Your task to perform on an android device: turn pop-ups off in chrome Image 0: 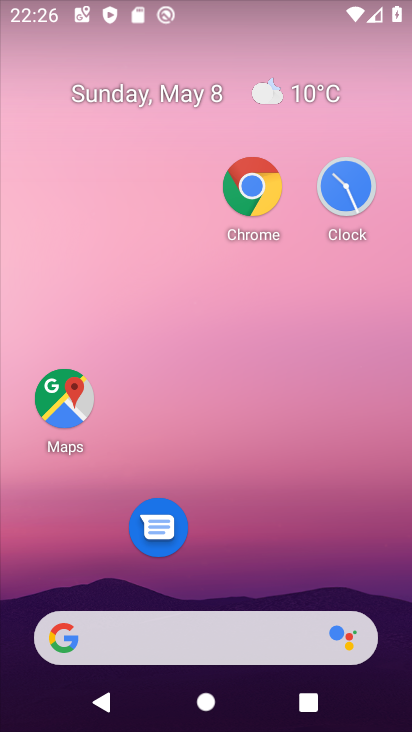
Step 0: click (239, 174)
Your task to perform on an android device: turn pop-ups off in chrome Image 1: 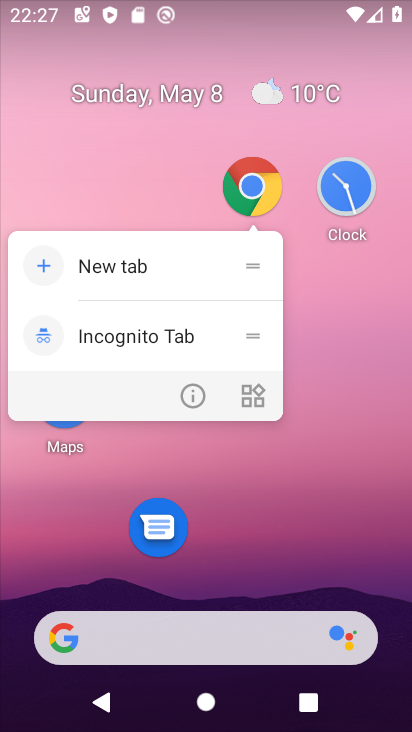
Step 1: click (239, 174)
Your task to perform on an android device: turn pop-ups off in chrome Image 2: 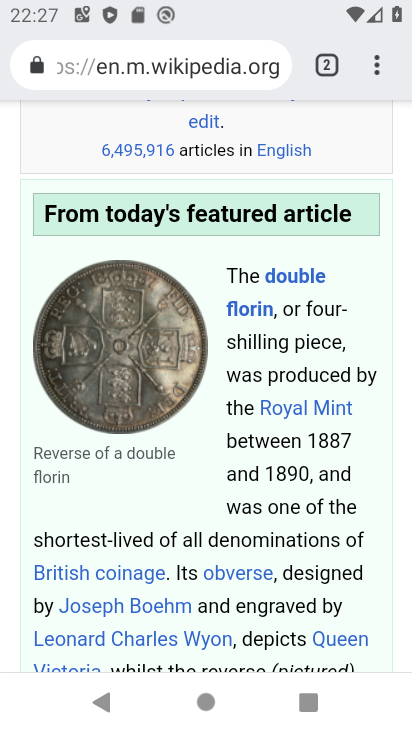
Step 2: click (381, 69)
Your task to perform on an android device: turn pop-ups off in chrome Image 3: 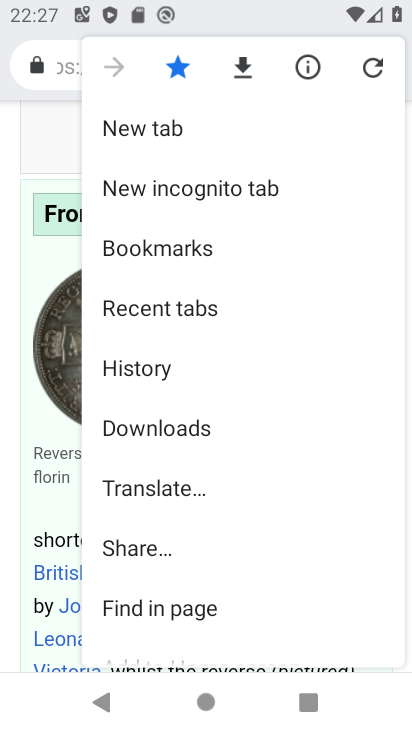
Step 3: drag from (267, 495) to (269, 136)
Your task to perform on an android device: turn pop-ups off in chrome Image 4: 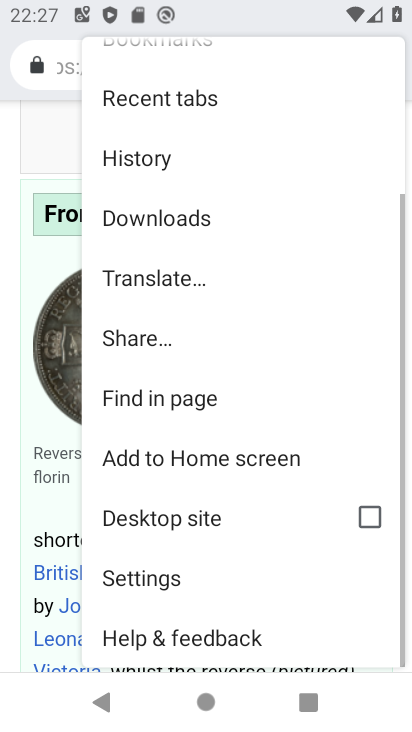
Step 4: drag from (221, 590) to (246, 247)
Your task to perform on an android device: turn pop-ups off in chrome Image 5: 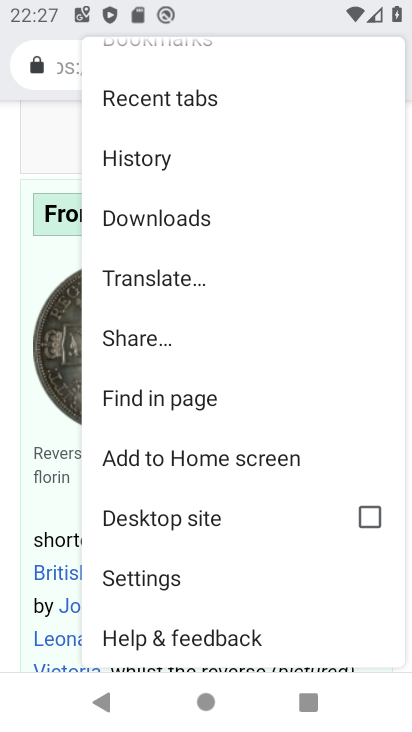
Step 5: click (240, 578)
Your task to perform on an android device: turn pop-ups off in chrome Image 6: 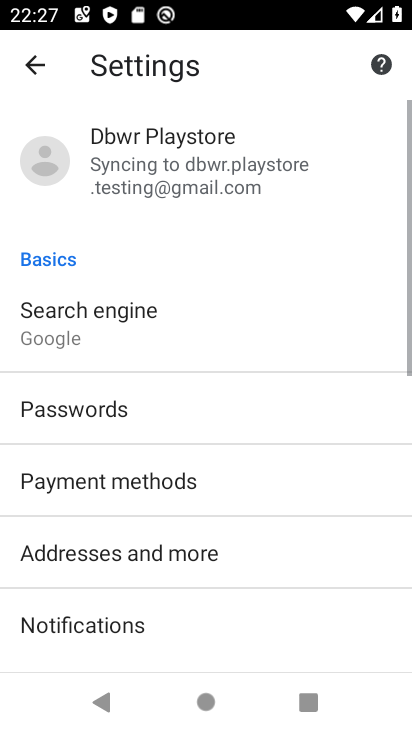
Step 6: drag from (236, 579) to (256, 298)
Your task to perform on an android device: turn pop-ups off in chrome Image 7: 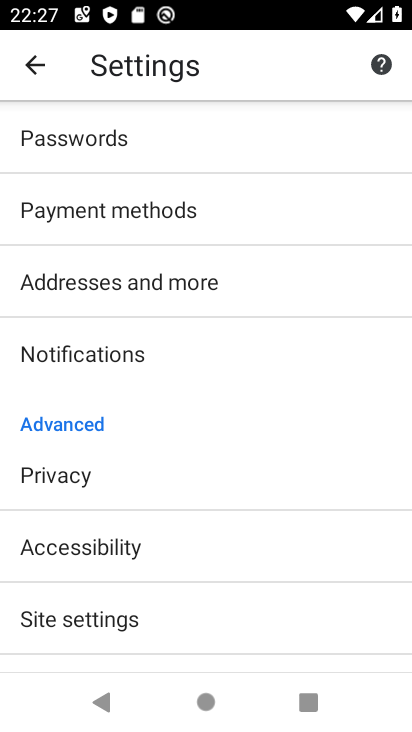
Step 7: drag from (231, 547) to (263, 225)
Your task to perform on an android device: turn pop-ups off in chrome Image 8: 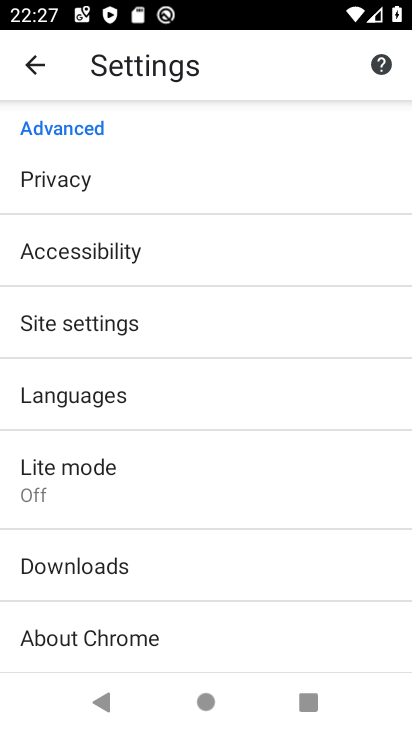
Step 8: drag from (260, 548) to (293, 129)
Your task to perform on an android device: turn pop-ups off in chrome Image 9: 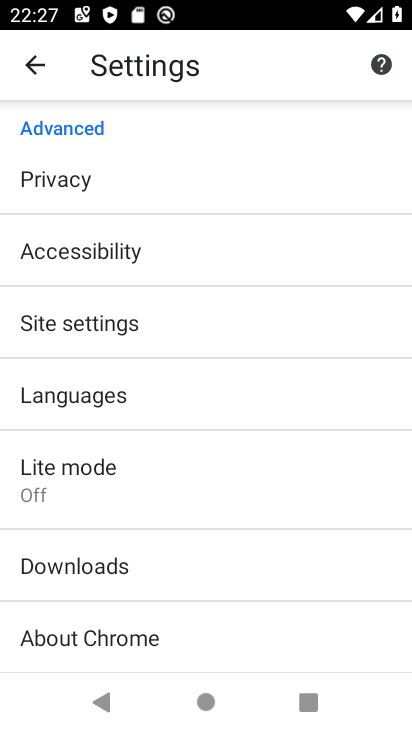
Step 9: click (99, 325)
Your task to perform on an android device: turn pop-ups off in chrome Image 10: 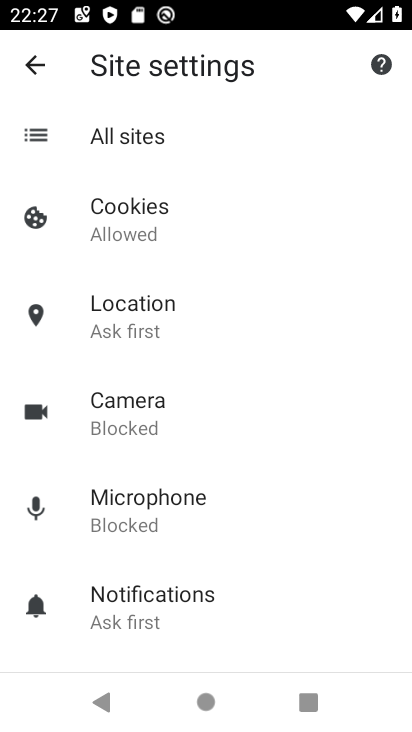
Step 10: drag from (233, 427) to (238, 64)
Your task to perform on an android device: turn pop-ups off in chrome Image 11: 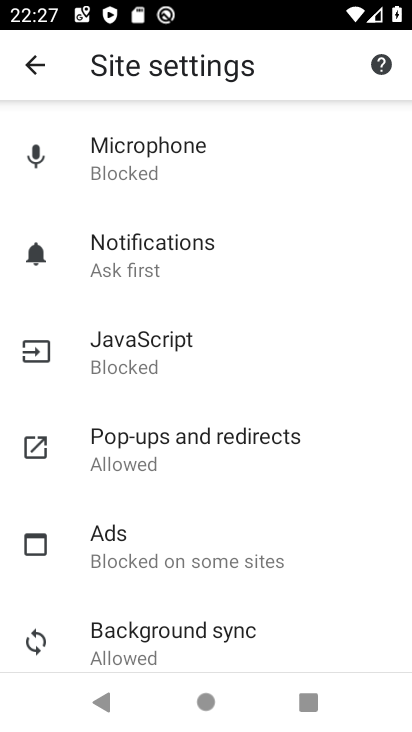
Step 11: click (184, 441)
Your task to perform on an android device: turn pop-ups off in chrome Image 12: 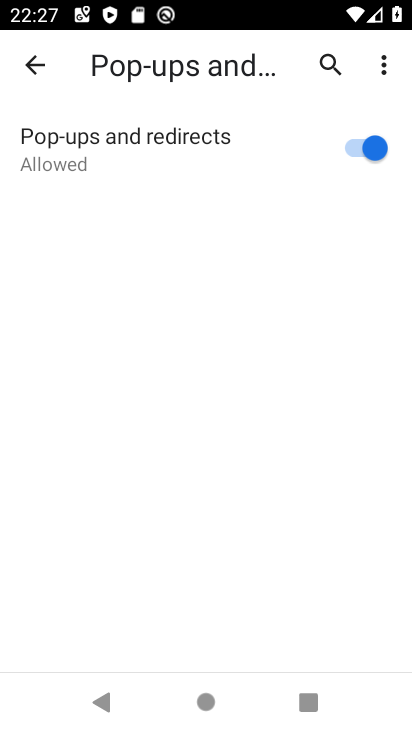
Step 12: click (372, 137)
Your task to perform on an android device: turn pop-ups off in chrome Image 13: 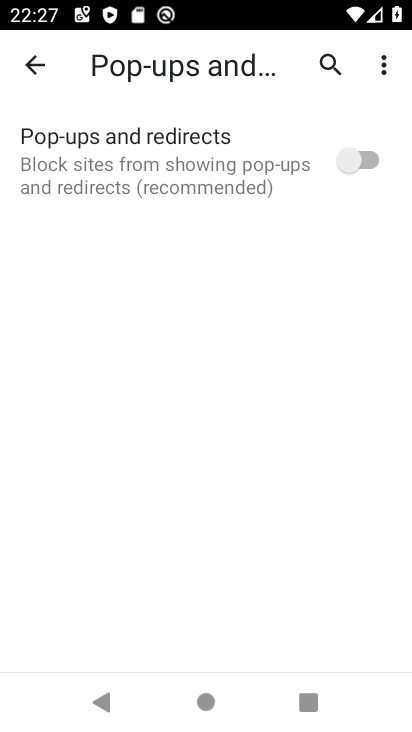
Step 13: task complete